Your task to perform on an android device: Show the shopping cart on ebay.com. Image 0: 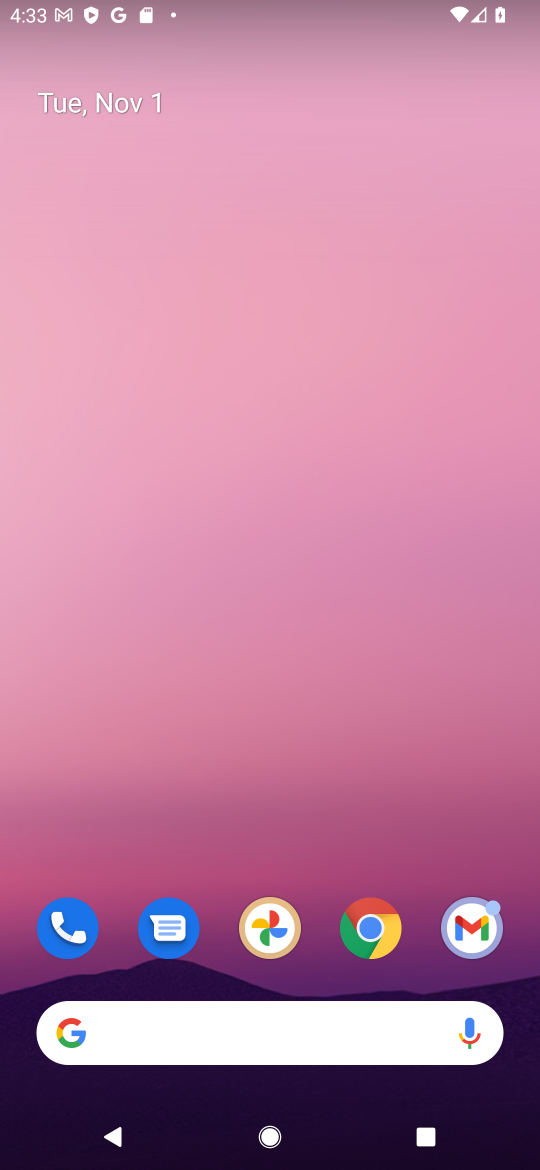
Step 0: click (363, 939)
Your task to perform on an android device: Show the shopping cart on ebay.com. Image 1: 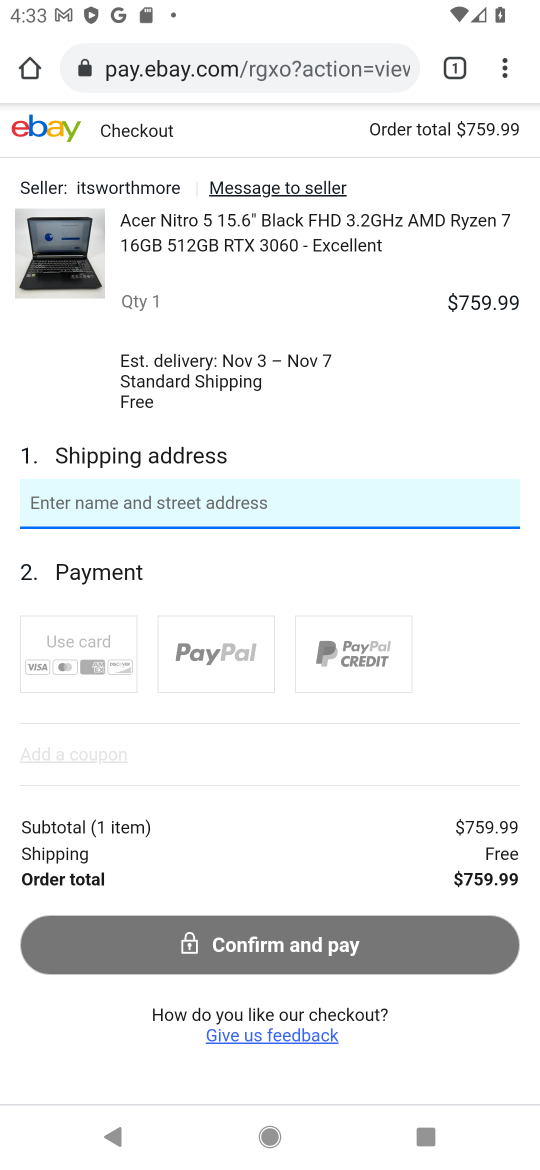
Step 1: click (251, 78)
Your task to perform on an android device: Show the shopping cart on ebay.com. Image 2: 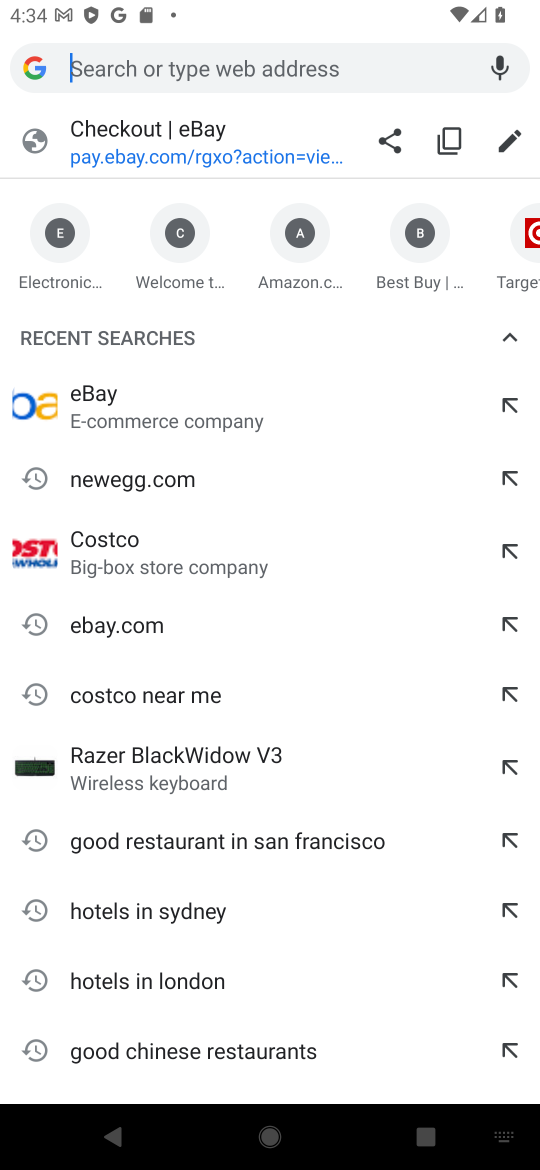
Step 2: type "ebay.com"
Your task to perform on an android device: Show the shopping cart on ebay.com. Image 3: 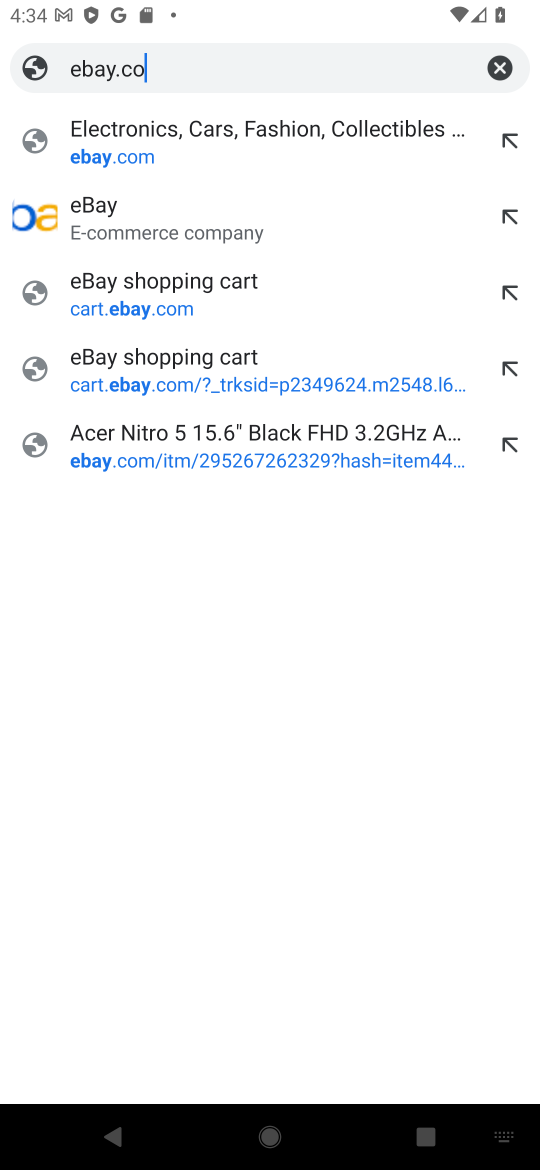
Step 3: type ""
Your task to perform on an android device: Show the shopping cart on ebay.com. Image 4: 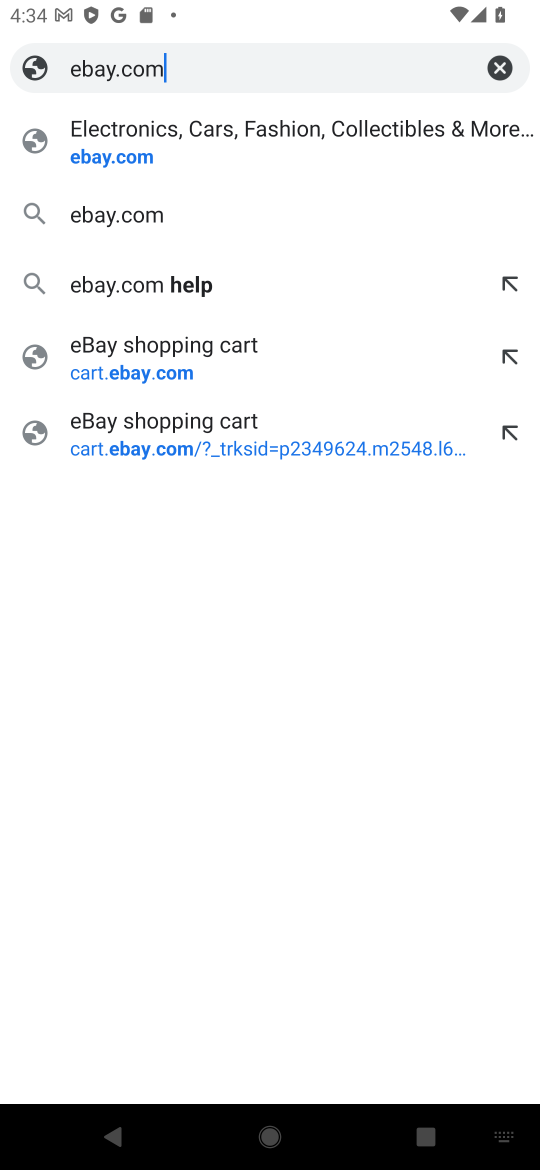
Step 4: press enter
Your task to perform on an android device: Show the shopping cart on ebay.com. Image 5: 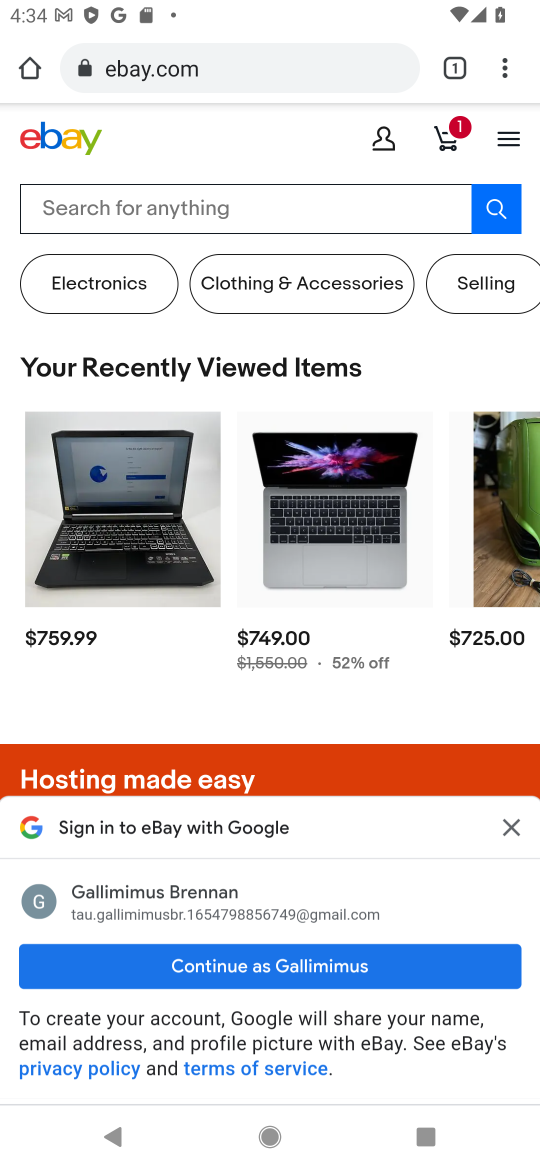
Step 5: click (337, 965)
Your task to perform on an android device: Show the shopping cart on ebay.com. Image 6: 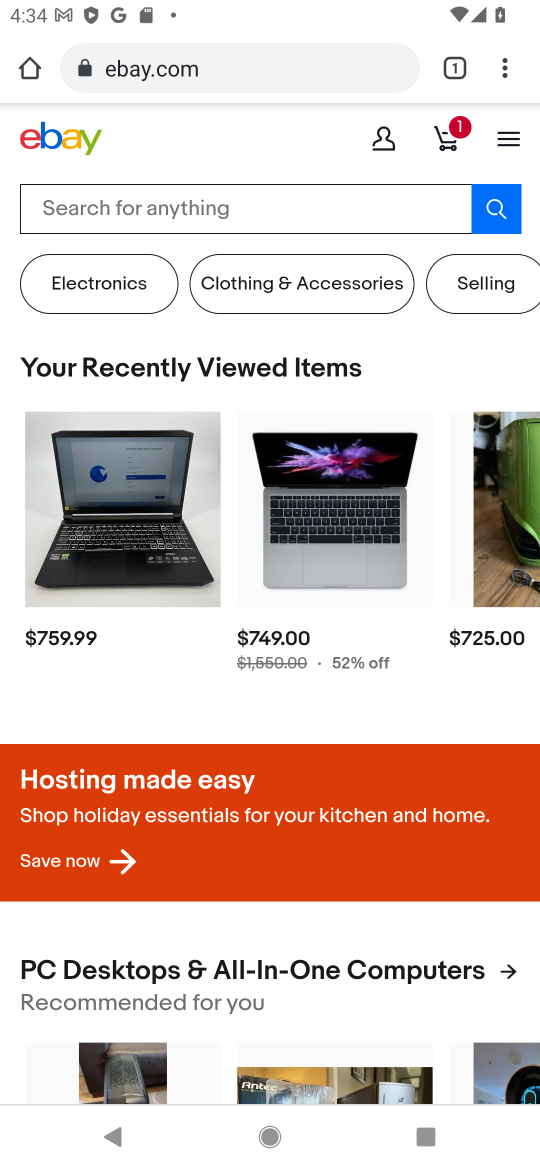
Step 6: click (453, 141)
Your task to perform on an android device: Show the shopping cart on ebay.com. Image 7: 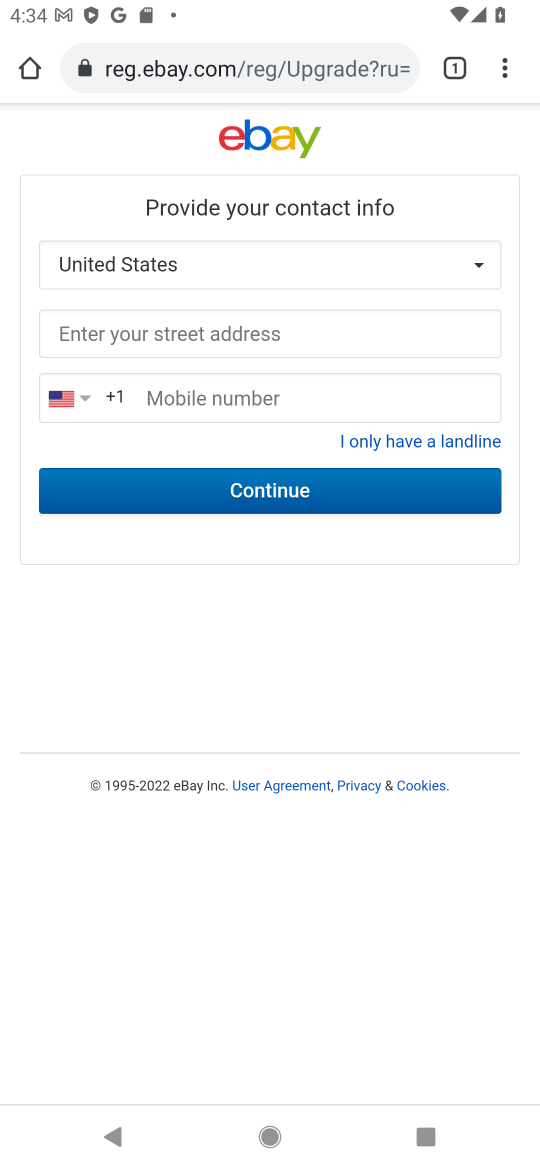
Step 7: press back button
Your task to perform on an android device: Show the shopping cart on ebay.com. Image 8: 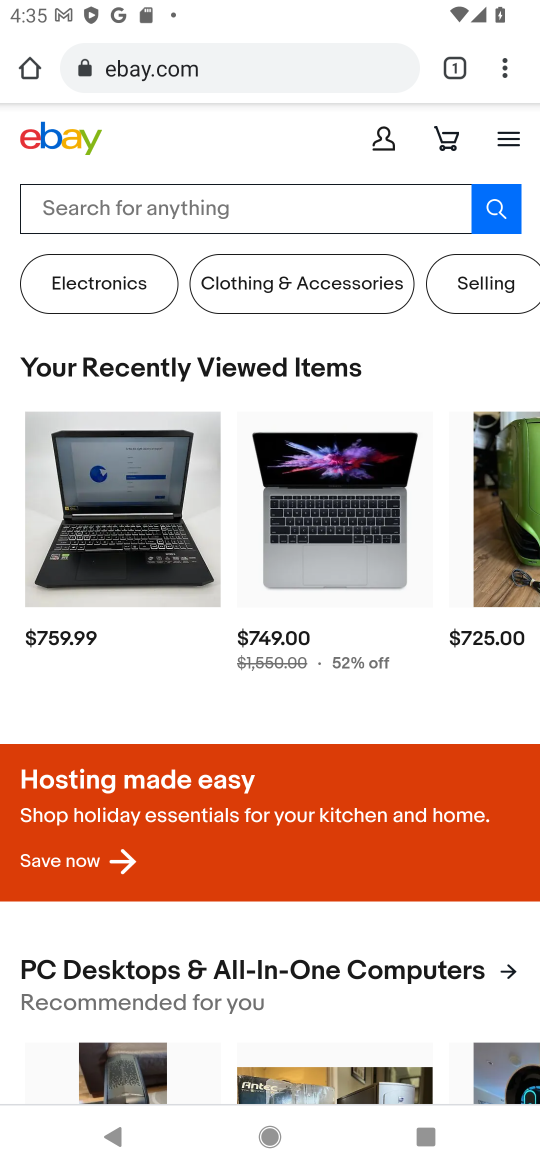
Step 8: drag from (246, 840) to (356, 702)
Your task to perform on an android device: Show the shopping cart on ebay.com. Image 9: 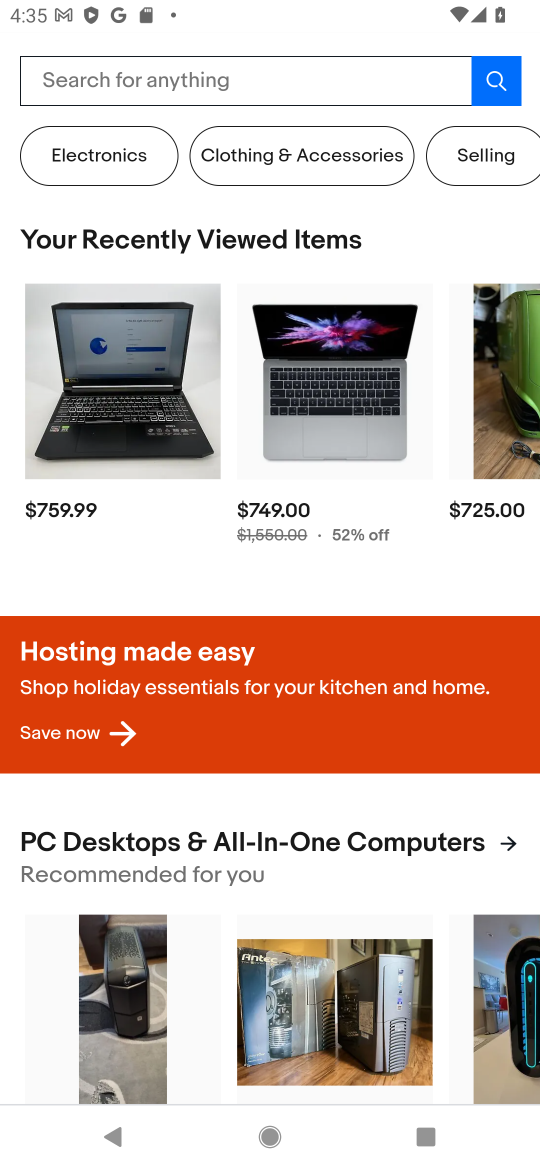
Step 9: drag from (458, 302) to (472, 745)
Your task to perform on an android device: Show the shopping cart on ebay.com. Image 10: 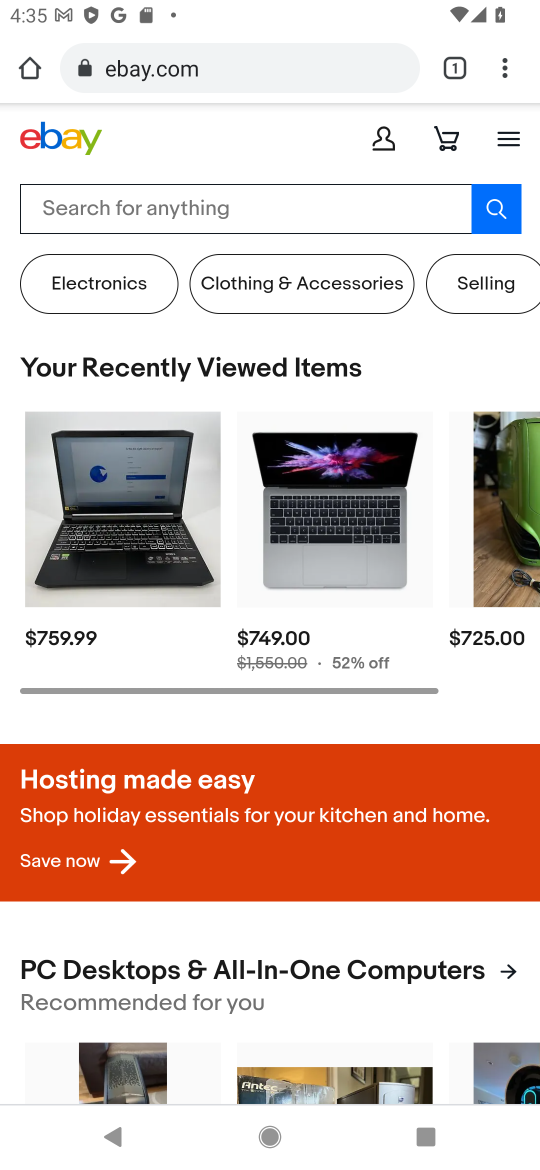
Step 10: click (445, 132)
Your task to perform on an android device: Show the shopping cart on ebay.com. Image 11: 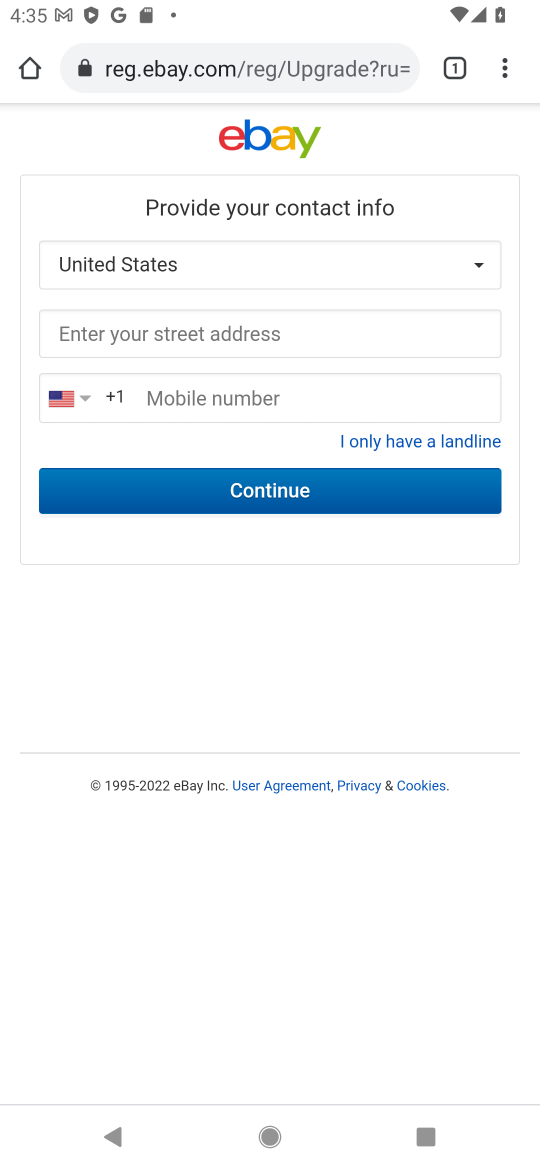
Step 11: task complete